Your task to perform on an android device: open a new tab in the chrome app Image 0: 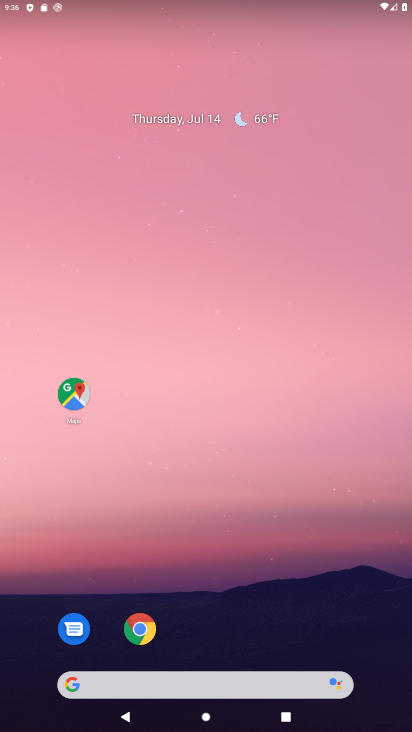
Step 0: press home button
Your task to perform on an android device: open a new tab in the chrome app Image 1: 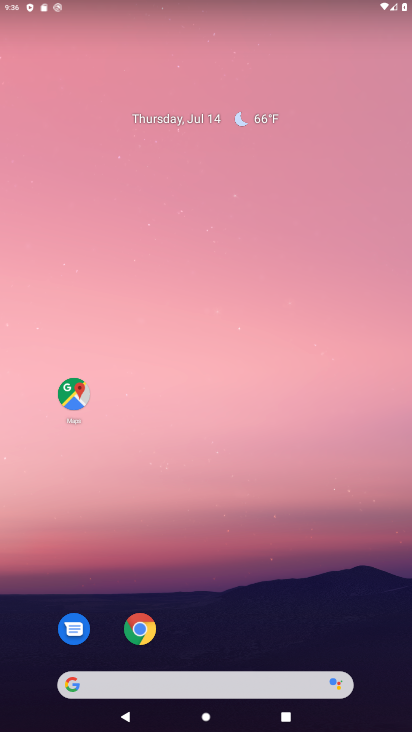
Step 1: click (136, 622)
Your task to perform on an android device: open a new tab in the chrome app Image 2: 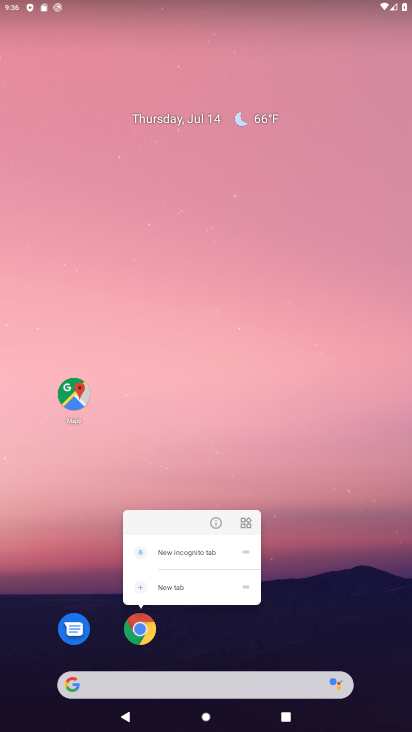
Step 2: click (136, 622)
Your task to perform on an android device: open a new tab in the chrome app Image 3: 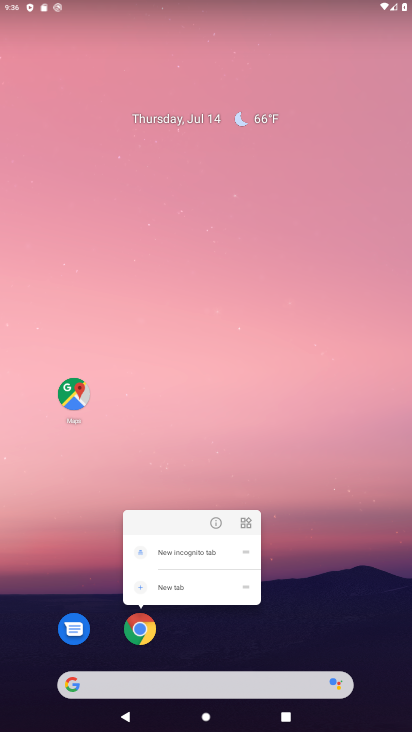
Step 3: click (137, 640)
Your task to perform on an android device: open a new tab in the chrome app Image 4: 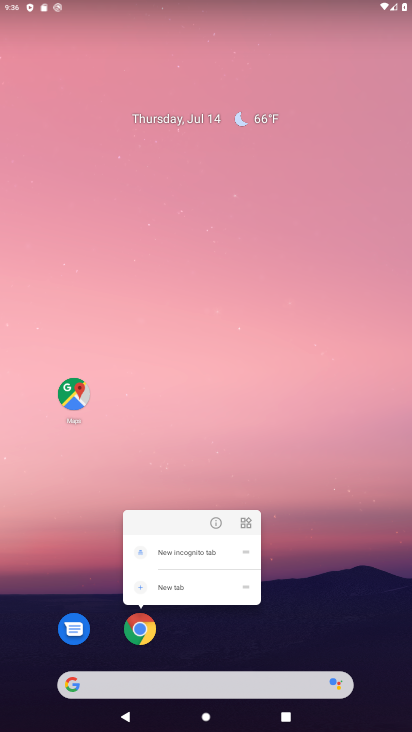
Step 4: click (142, 640)
Your task to perform on an android device: open a new tab in the chrome app Image 5: 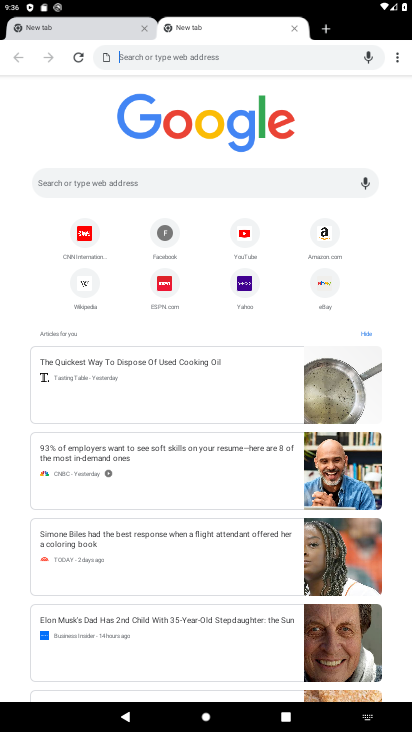
Step 5: click (328, 23)
Your task to perform on an android device: open a new tab in the chrome app Image 6: 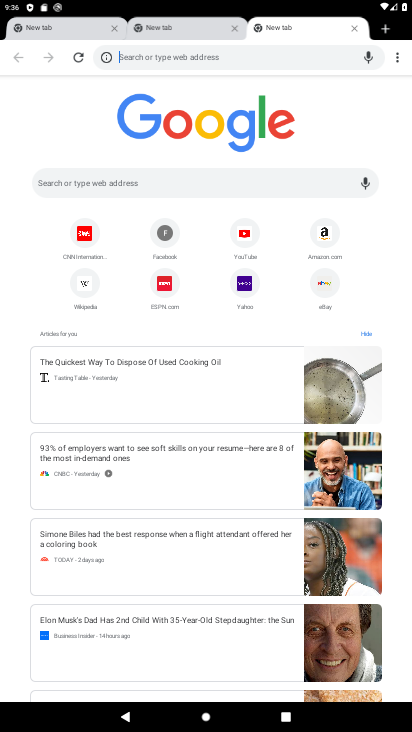
Step 6: task complete